Your task to perform on an android device: Open internet settings Image 0: 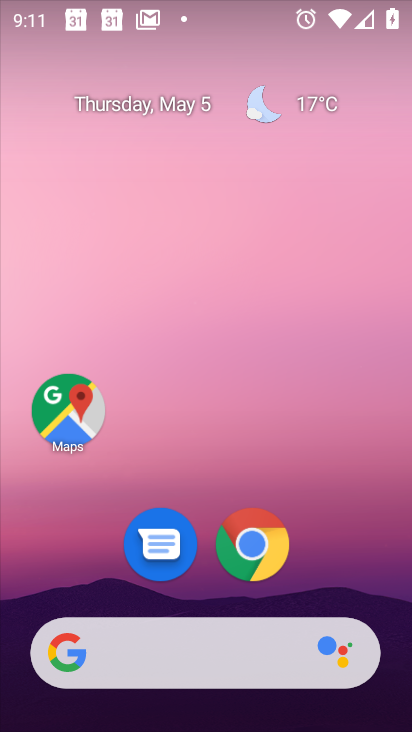
Step 0: drag from (361, 558) to (303, 79)
Your task to perform on an android device: Open internet settings Image 1: 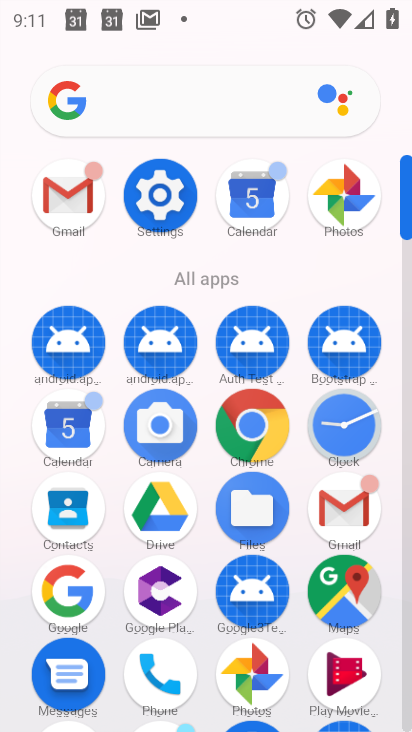
Step 1: click (162, 227)
Your task to perform on an android device: Open internet settings Image 2: 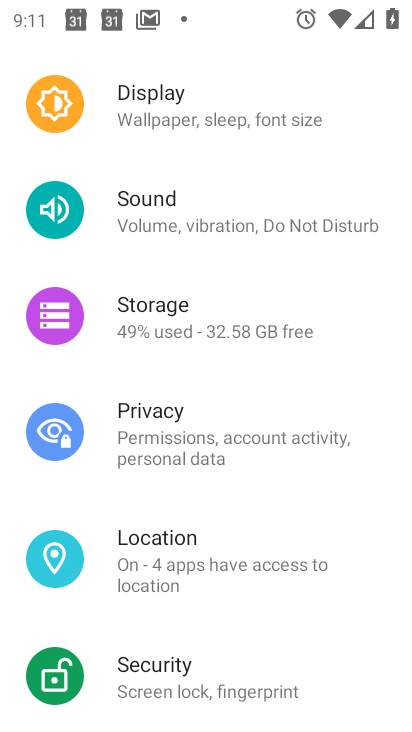
Step 2: drag from (215, 148) to (179, 479)
Your task to perform on an android device: Open internet settings Image 3: 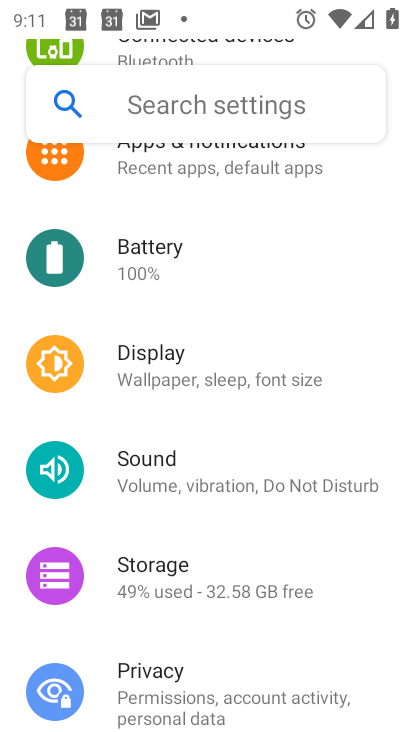
Step 3: drag from (192, 177) to (174, 455)
Your task to perform on an android device: Open internet settings Image 4: 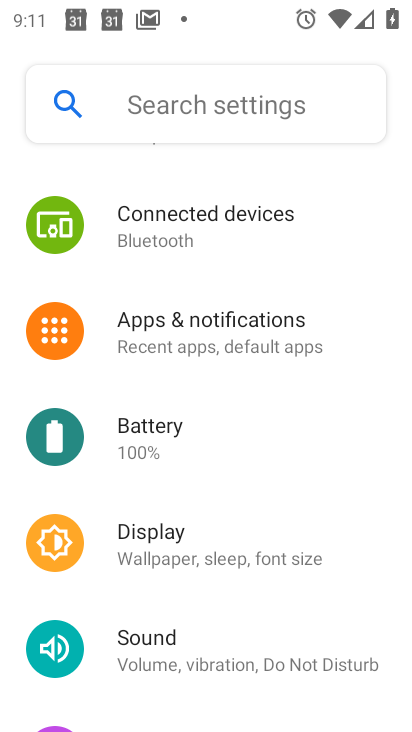
Step 4: drag from (210, 262) to (264, 545)
Your task to perform on an android device: Open internet settings Image 5: 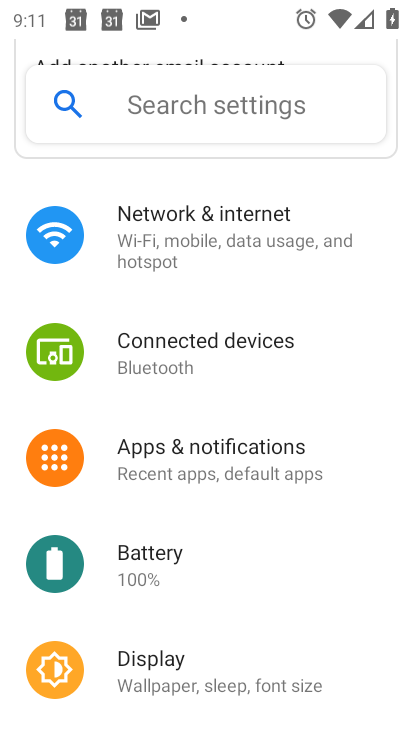
Step 5: click (210, 268)
Your task to perform on an android device: Open internet settings Image 6: 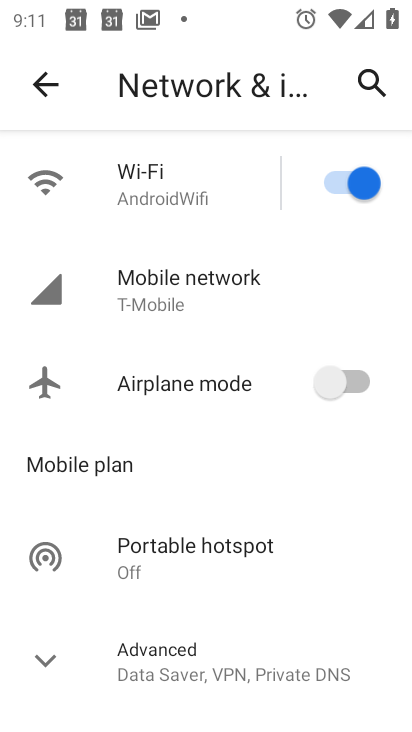
Step 6: task complete